Your task to perform on an android device: change the upload size in google photos Image 0: 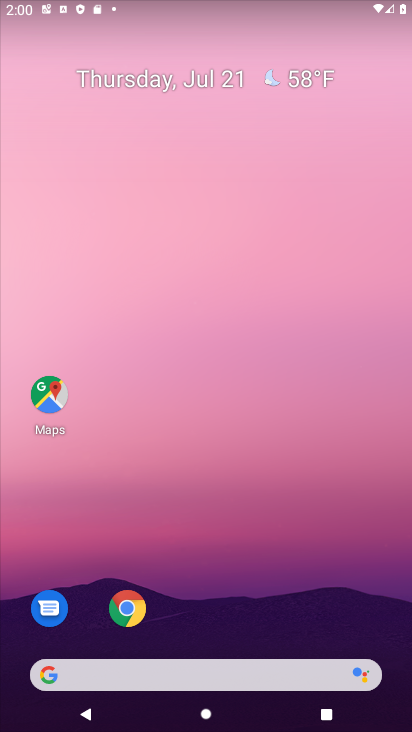
Step 0: drag from (339, 611) to (277, 46)
Your task to perform on an android device: change the upload size in google photos Image 1: 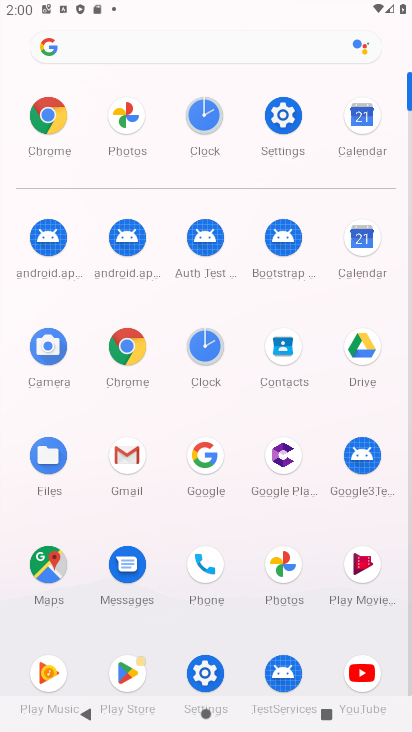
Step 1: click (286, 564)
Your task to perform on an android device: change the upload size in google photos Image 2: 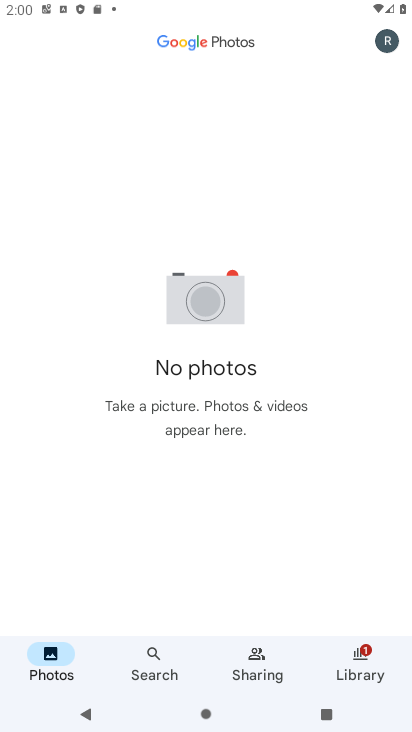
Step 2: click (374, 51)
Your task to perform on an android device: change the upload size in google photos Image 3: 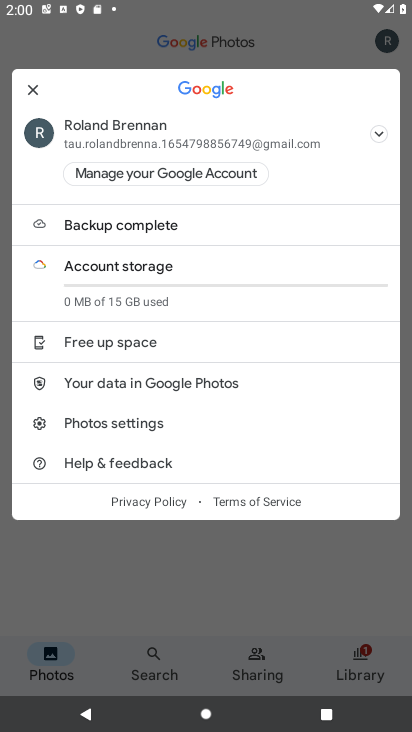
Step 3: click (114, 418)
Your task to perform on an android device: change the upload size in google photos Image 4: 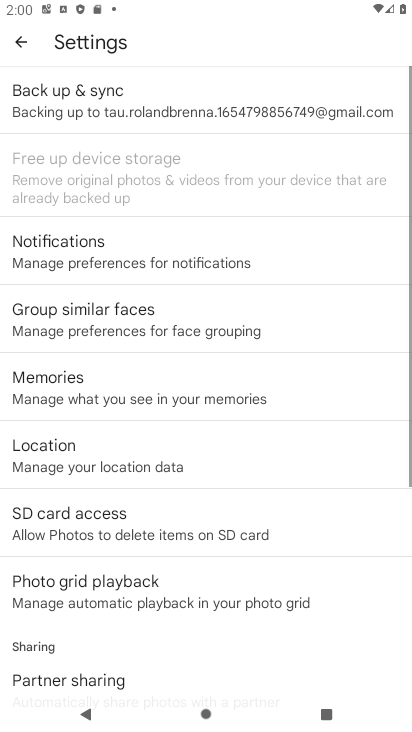
Step 4: click (130, 117)
Your task to perform on an android device: change the upload size in google photos Image 5: 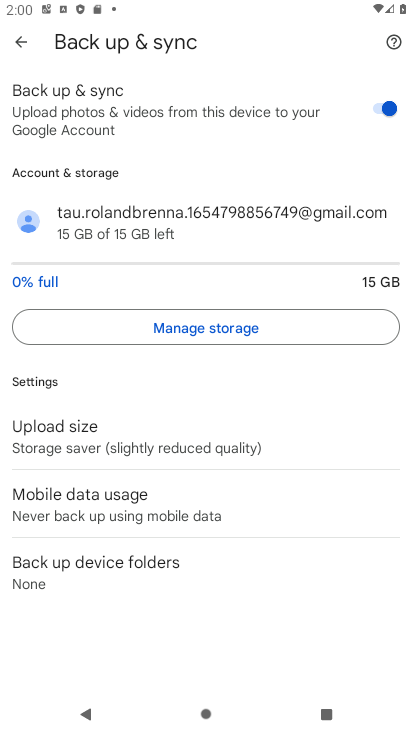
Step 5: click (115, 431)
Your task to perform on an android device: change the upload size in google photos Image 6: 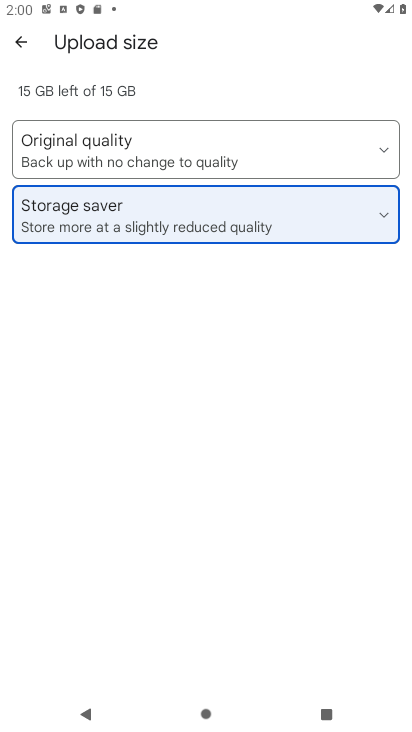
Step 6: click (117, 136)
Your task to perform on an android device: change the upload size in google photos Image 7: 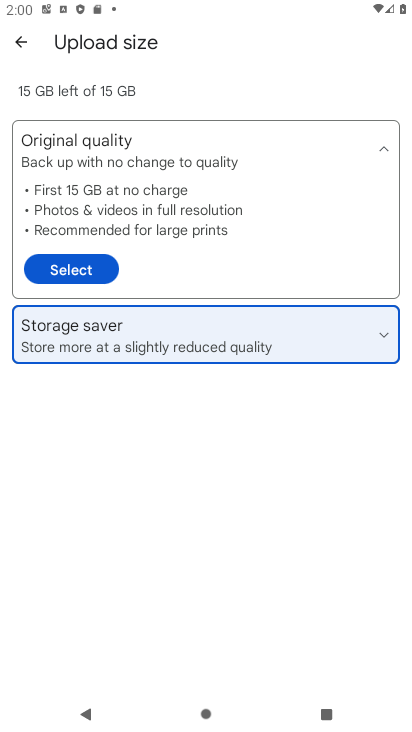
Step 7: click (62, 268)
Your task to perform on an android device: change the upload size in google photos Image 8: 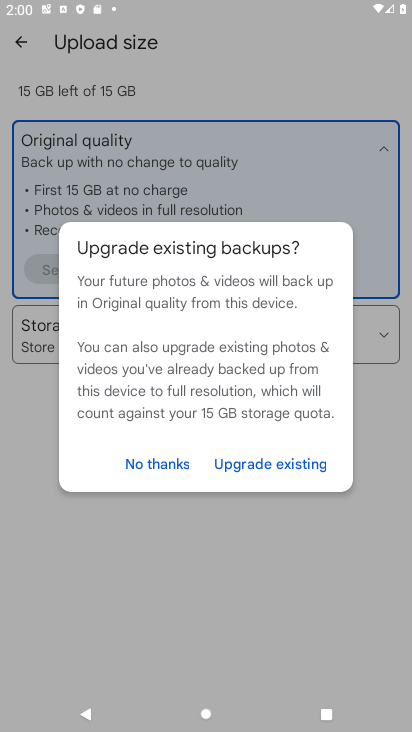
Step 8: click (285, 455)
Your task to perform on an android device: change the upload size in google photos Image 9: 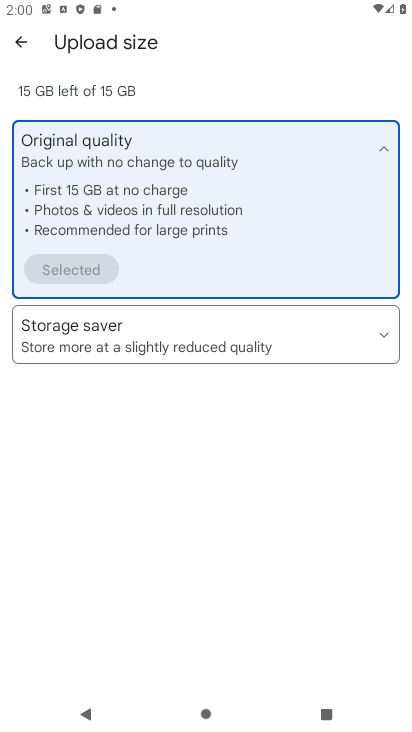
Step 9: task complete